Your task to perform on an android device: turn off priority inbox in the gmail app Image 0: 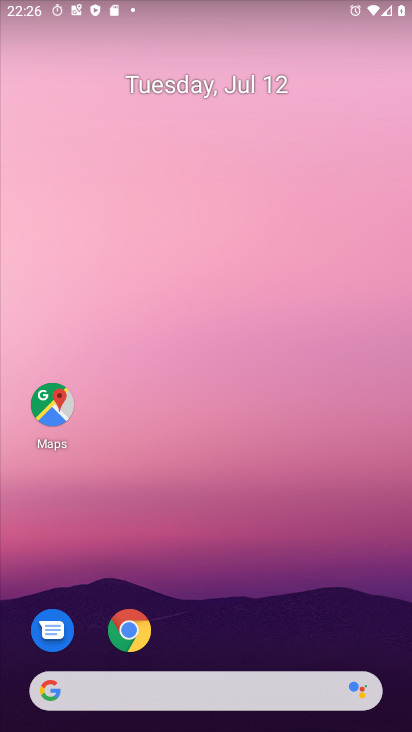
Step 0: drag from (193, 573) to (233, 20)
Your task to perform on an android device: turn off priority inbox in the gmail app Image 1: 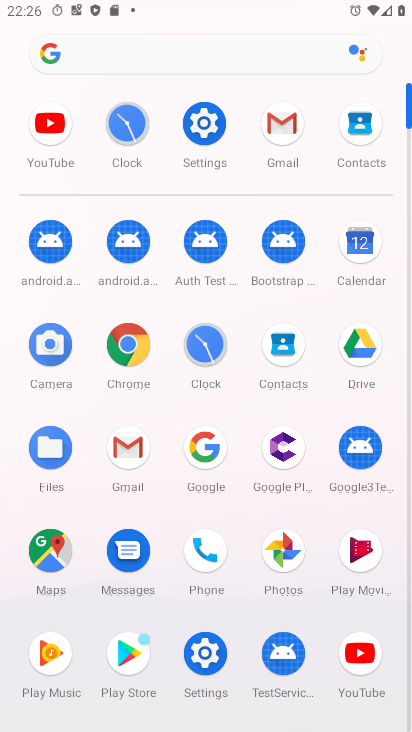
Step 1: click (296, 113)
Your task to perform on an android device: turn off priority inbox in the gmail app Image 2: 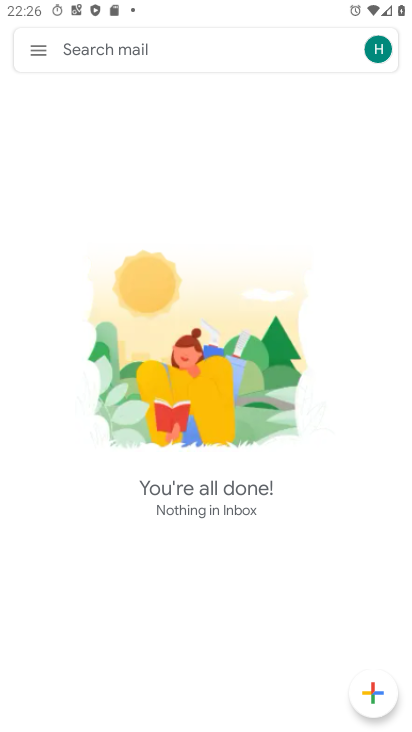
Step 2: click (31, 39)
Your task to perform on an android device: turn off priority inbox in the gmail app Image 3: 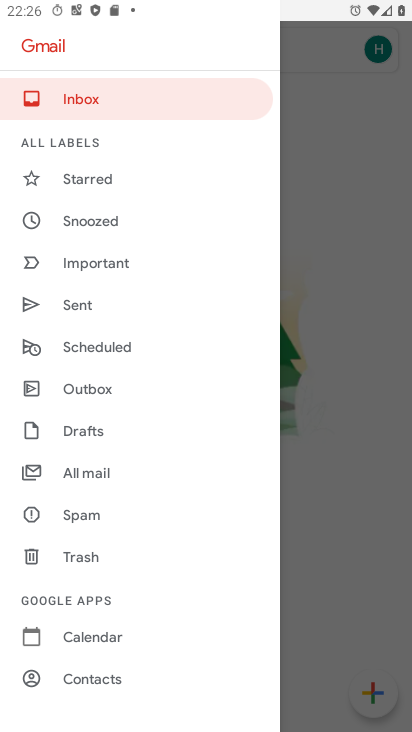
Step 3: drag from (91, 661) to (206, 94)
Your task to perform on an android device: turn off priority inbox in the gmail app Image 4: 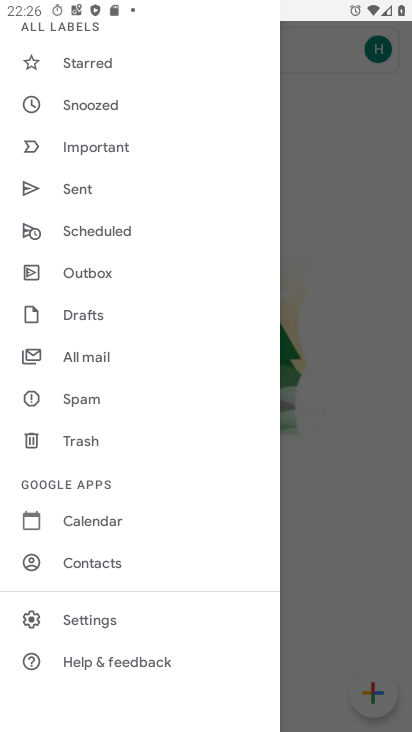
Step 4: click (95, 613)
Your task to perform on an android device: turn off priority inbox in the gmail app Image 5: 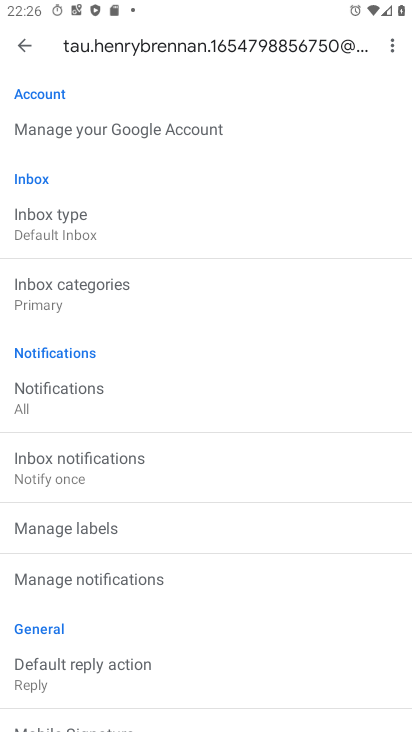
Step 5: click (59, 228)
Your task to perform on an android device: turn off priority inbox in the gmail app Image 6: 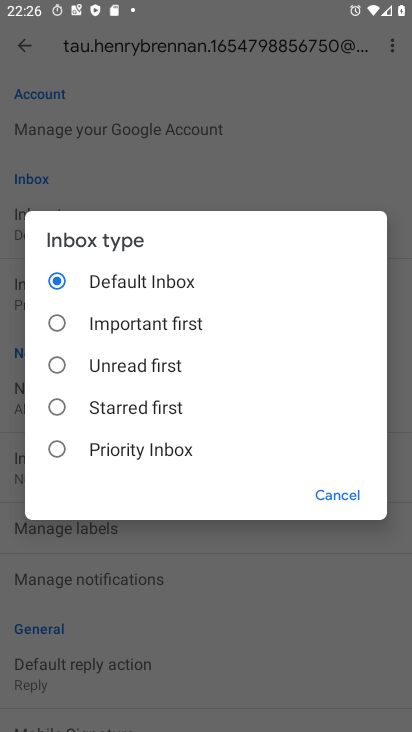
Step 6: click (59, 285)
Your task to perform on an android device: turn off priority inbox in the gmail app Image 7: 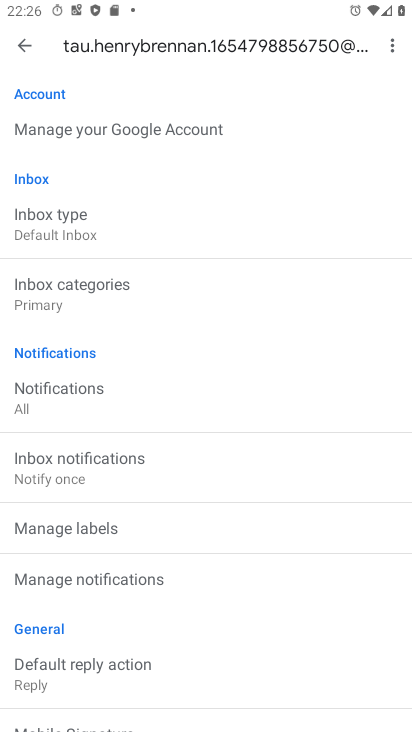
Step 7: task complete